Your task to perform on an android device: change notifications settings Image 0: 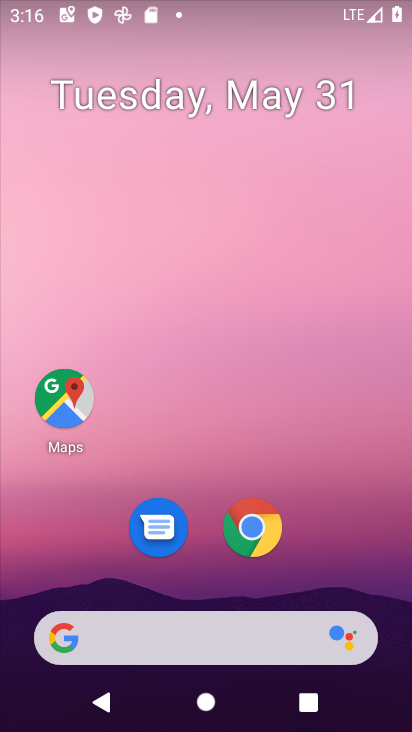
Step 0: drag from (375, 484) to (397, 157)
Your task to perform on an android device: change notifications settings Image 1: 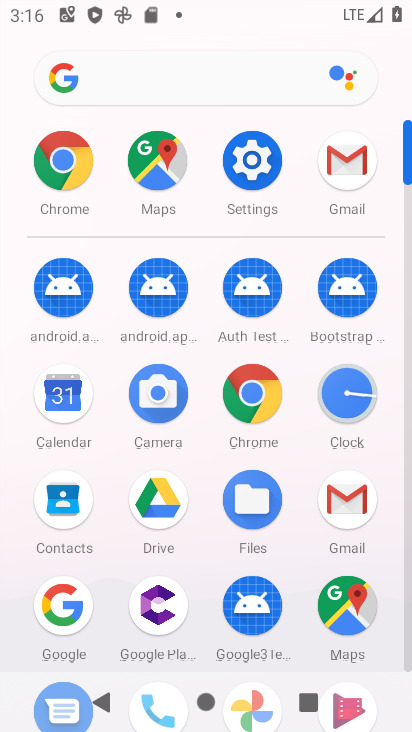
Step 1: click (251, 176)
Your task to perform on an android device: change notifications settings Image 2: 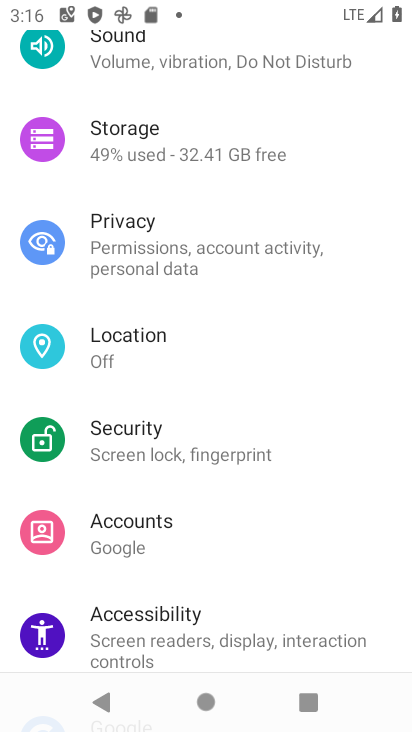
Step 2: drag from (260, 200) to (230, 627)
Your task to perform on an android device: change notifications settings Image 3: 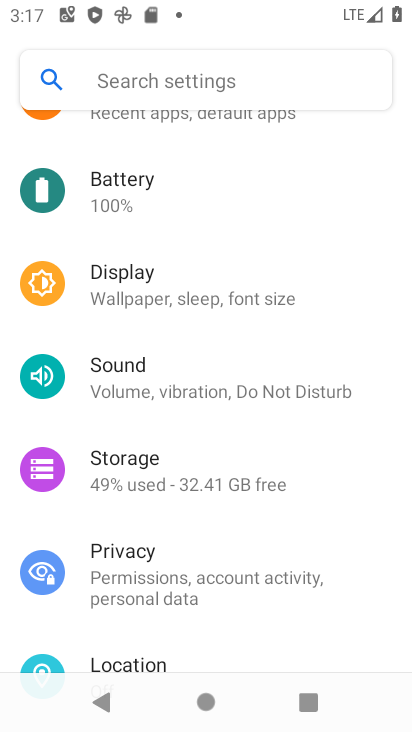
Step 3: drag from (211, 242) to (206, 628)
Your task to perform on an android device: change notifications settings Image 4: 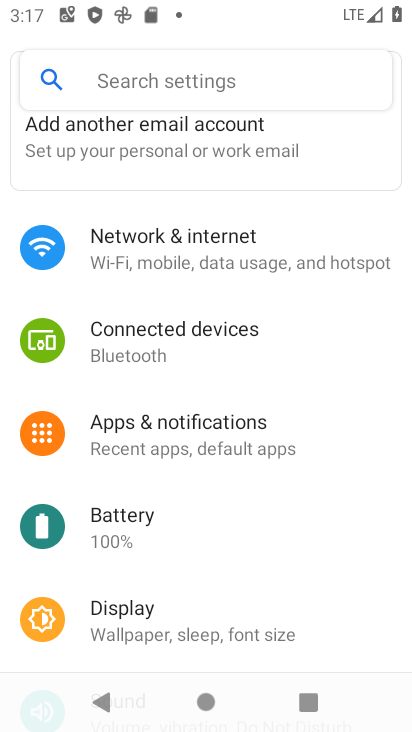
Step 4: click (213, 451)
Your task to perform on an android device: change notifications settings Image 5: 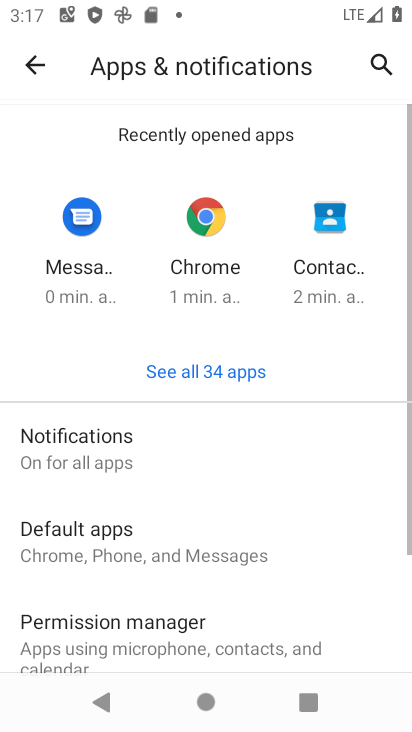
Step 5: click (76, 468)
Your task to perform on an android device: change notifications settings Image 6: 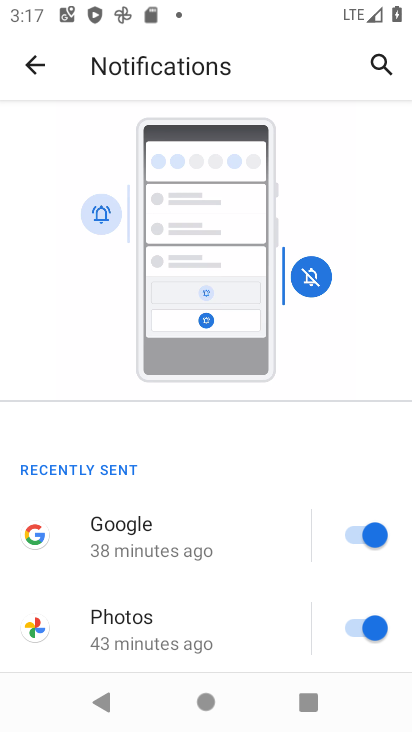
Step 6: drag from (101, 533) to (124, 136)
Your task to perform on an android device: change notifications settings Image 7: 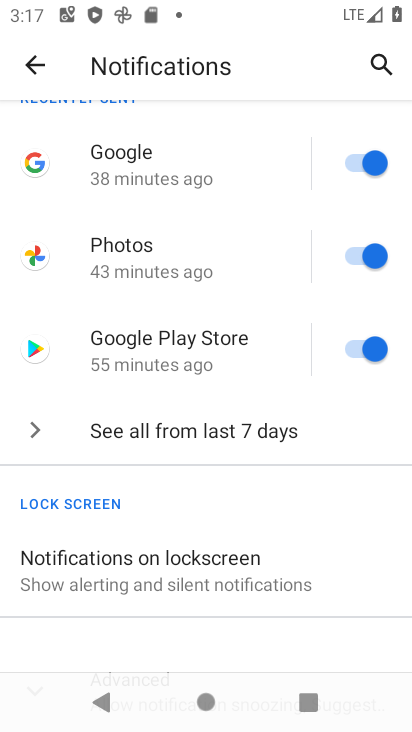
Step 7: drag from (148, 473) to (224, 181)
Your task to perform on an android device: change notifications settings Image 8: 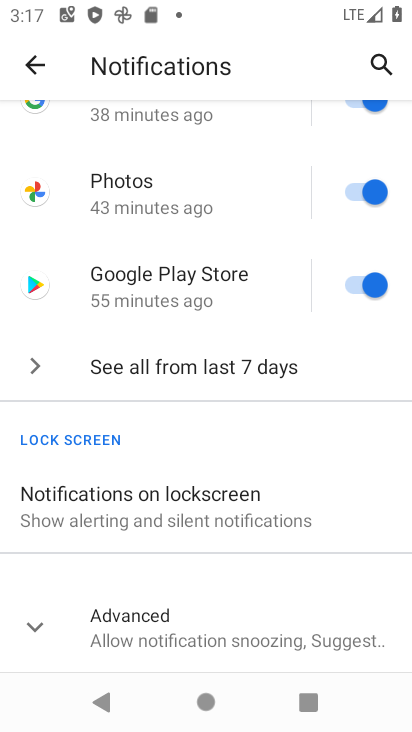
Step 8: click (368, 292)
Your task to perform on an android device: change notifications settings Image 9: 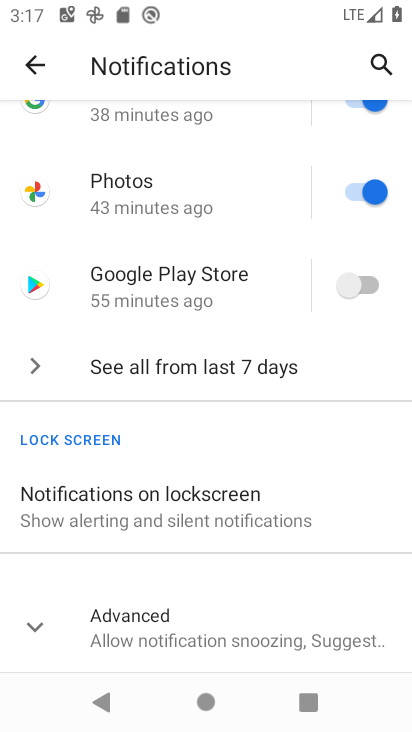
Step 9: task complete